Your task to perform on an android device: Add usb-c to usb-b to the cart on costco.com Image 0: 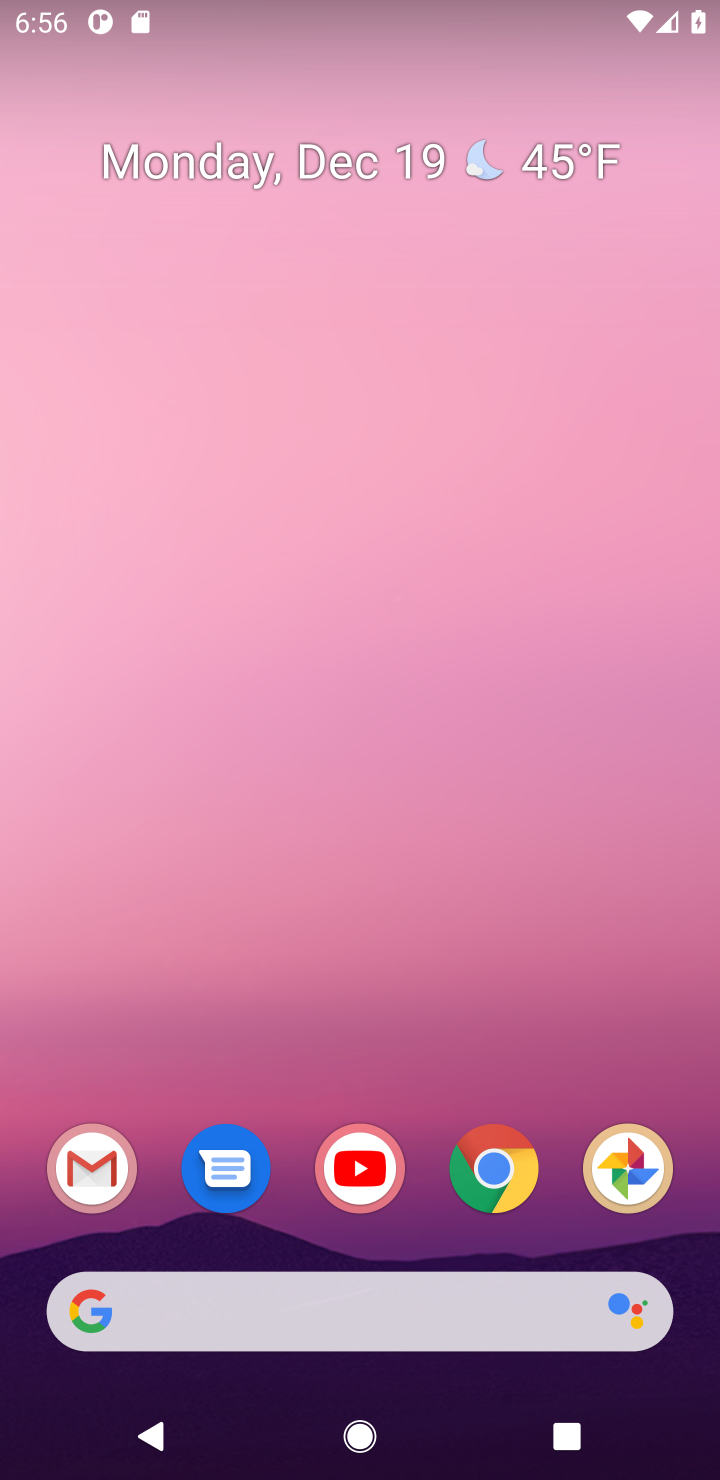
Step 0: click (474, 1175)
Your task to perform on an android device: Add usb-c to usb-b to the cart on costco.com Image 1: 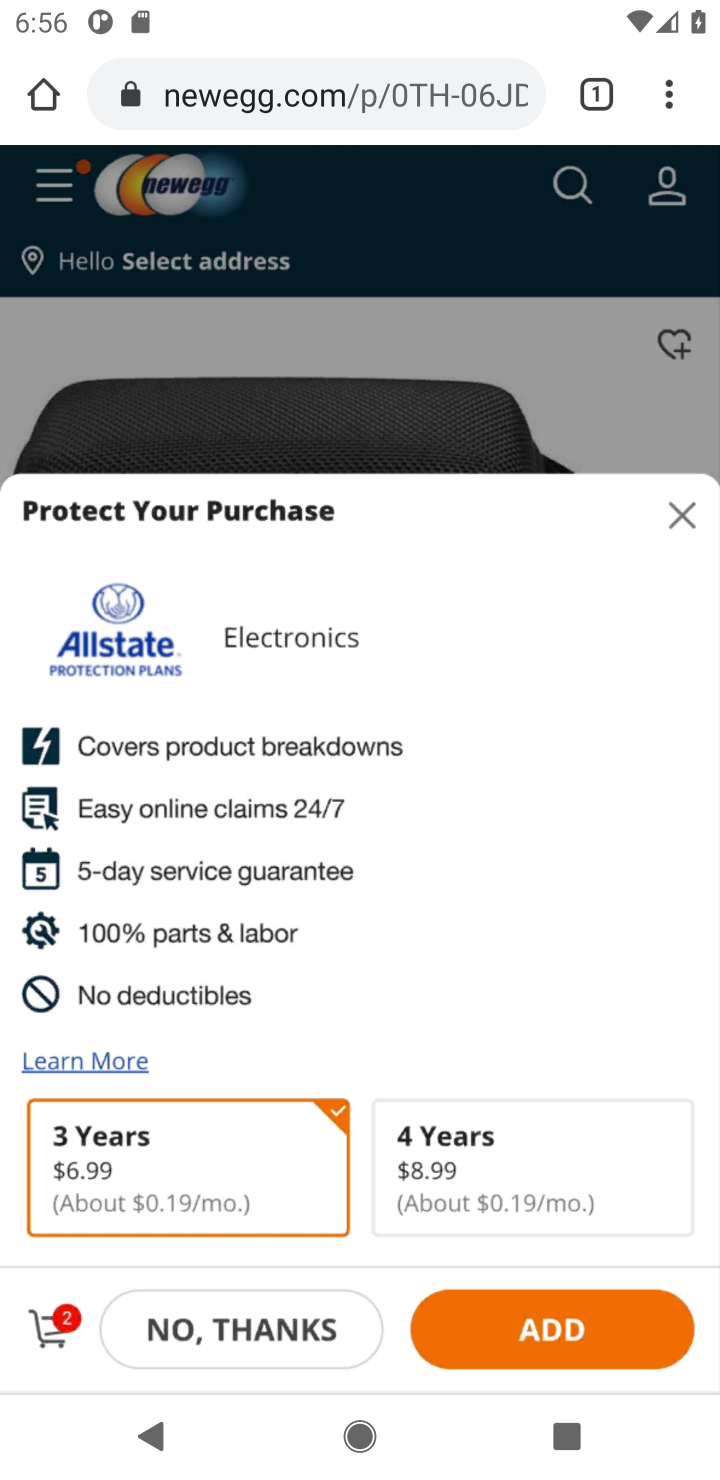
Step 1: click (321, 108)
Your task to perform on an android device: Add usb-c to usb-b to the cart on costco.com Image 2: 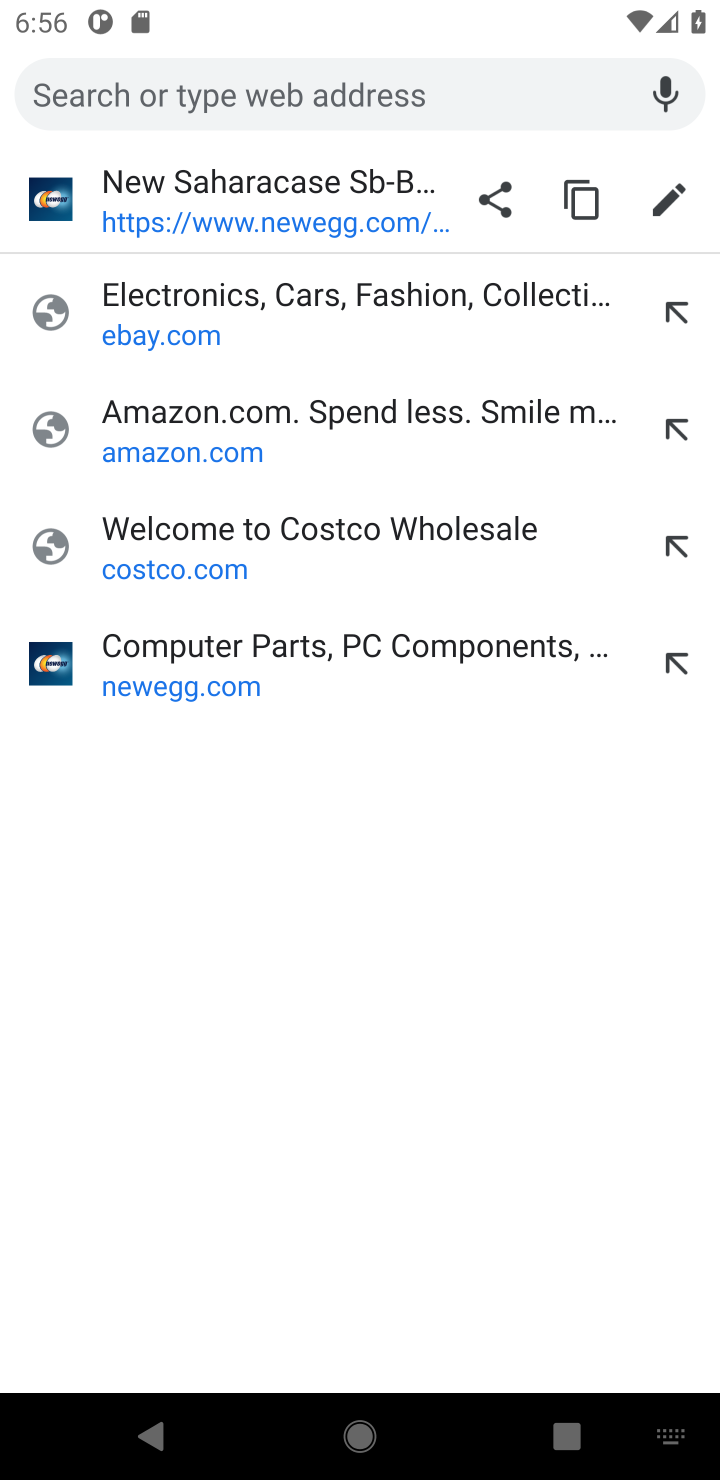
Step 2: click (177, 576)
Your task to perform on an android device: Add usb-c to usb-b to the cart on costco.com Image 3: 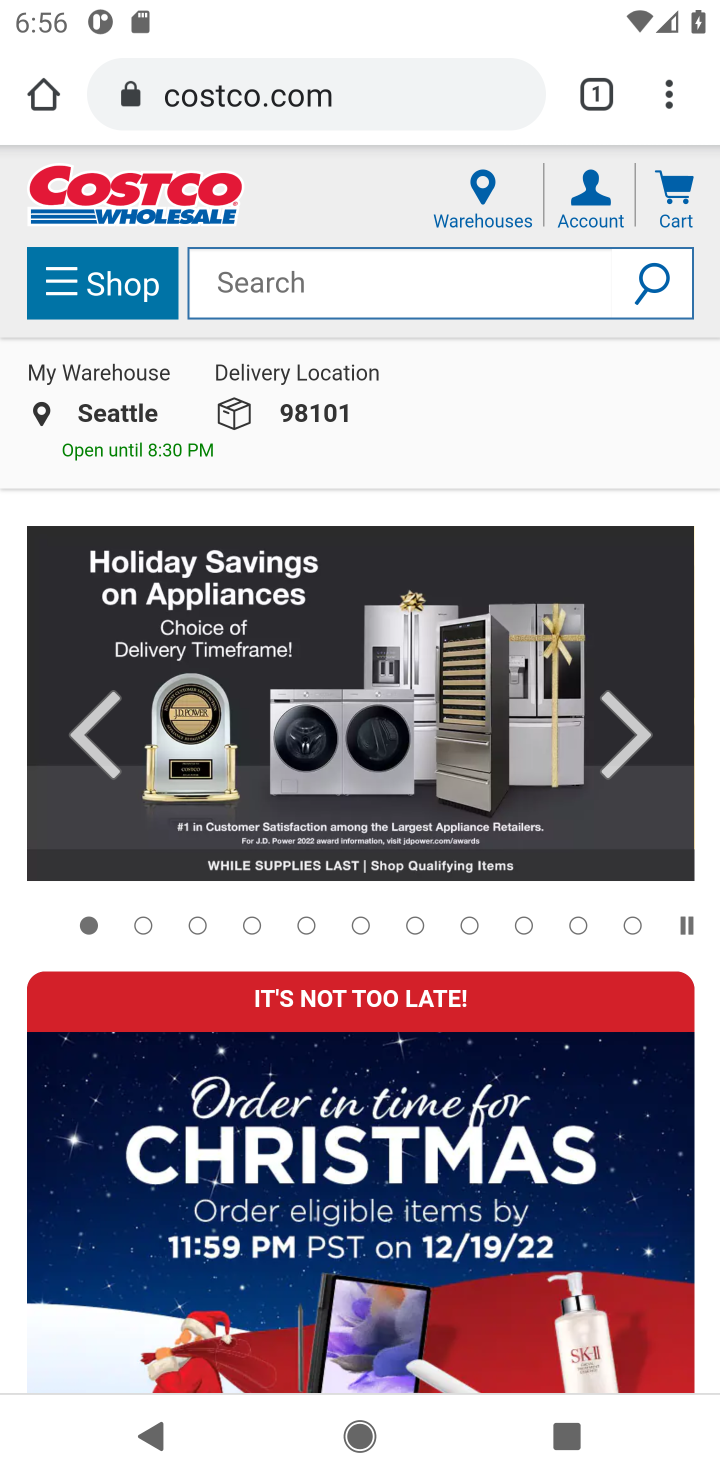
Step 3: click (294, 283)
Your task to perform on an android device: Add usb-c to usb-b to the cart on costco.com Image 4: 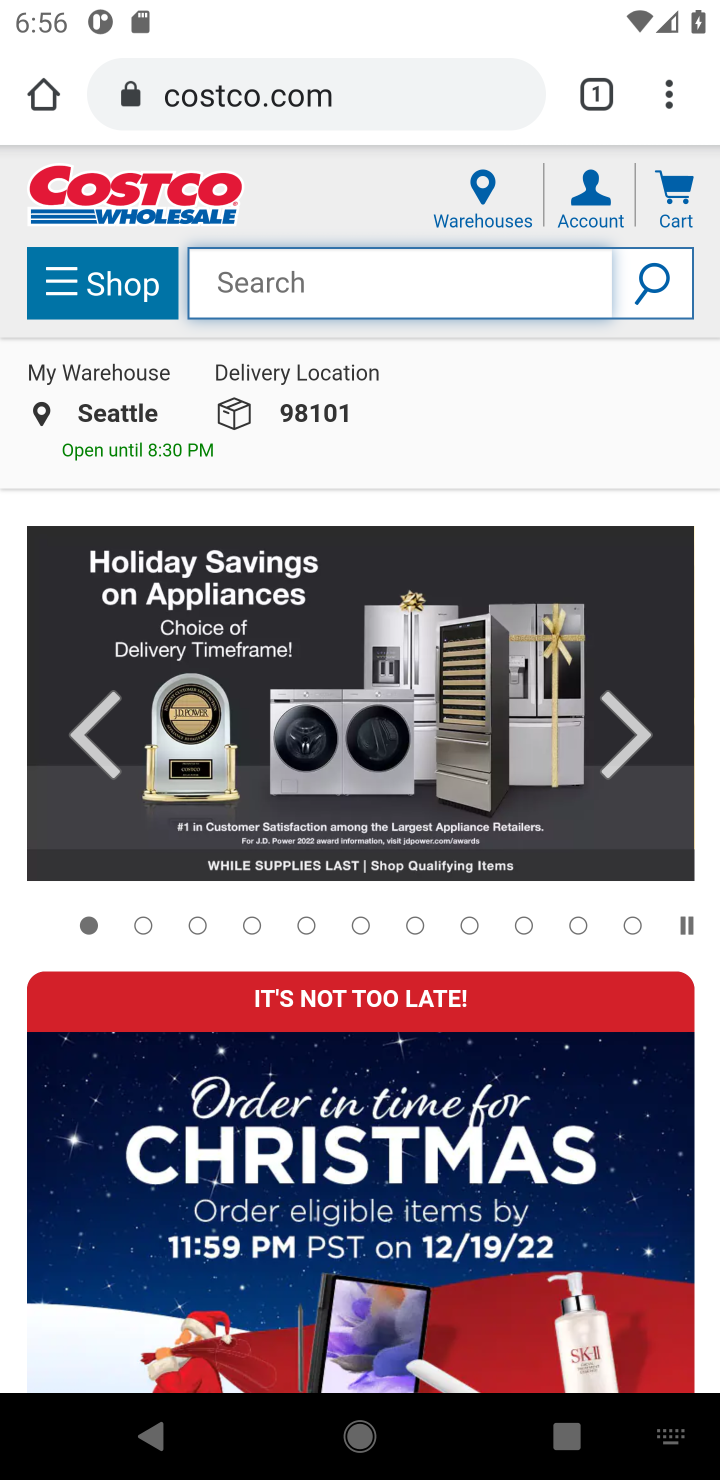
Step 4: type "usb-c to usb-b"
Your task to perform on an android device: Add usb-c to usb-b to the cart on costco.com Image 5: 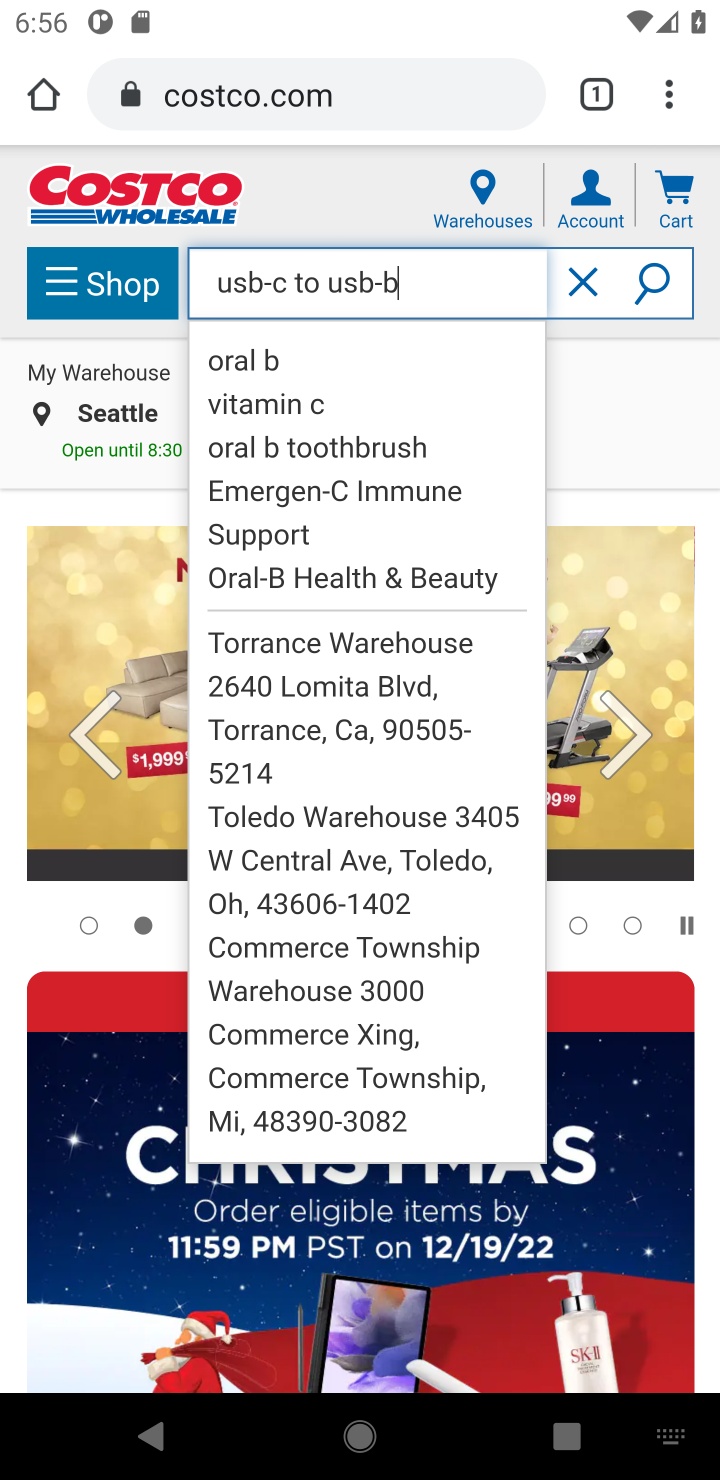
Step 5: click (645, 286)
Your task to perform on an android device: Add usb-c to usb-b to the cart on costco.com Image 6: 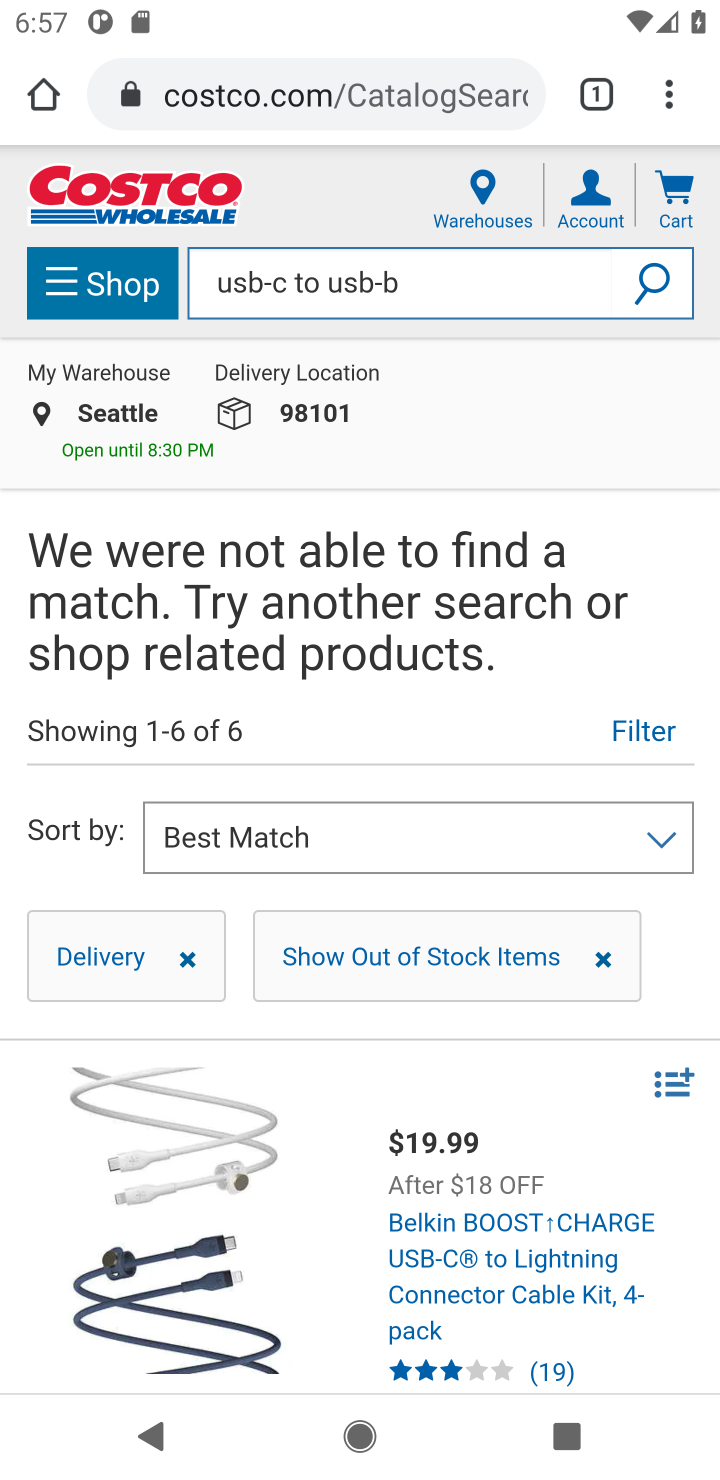
Step 6: task complete